Your task to perform on an android device: turn notification dots off Image 0: 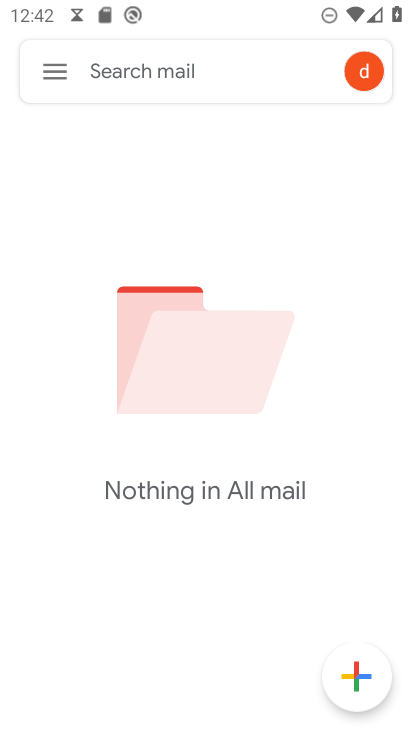
Step 0: press home button
Your task to perform on an android device: turn notification dots off Image 1: 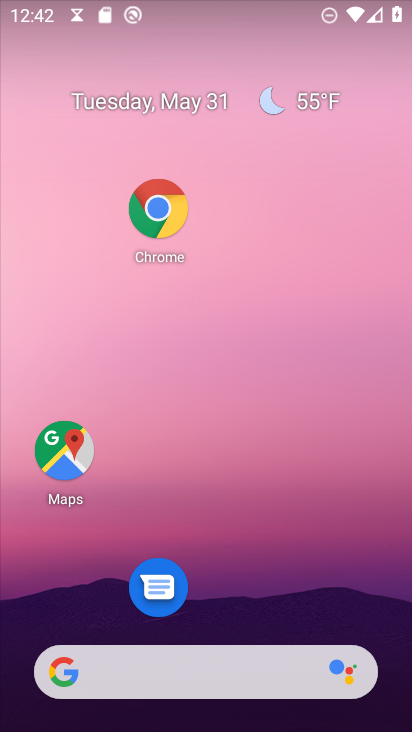
Step 1: drag from (285, 614) to (237, 160)
Your task to perform on an android device: turn notification dots off Image 2: 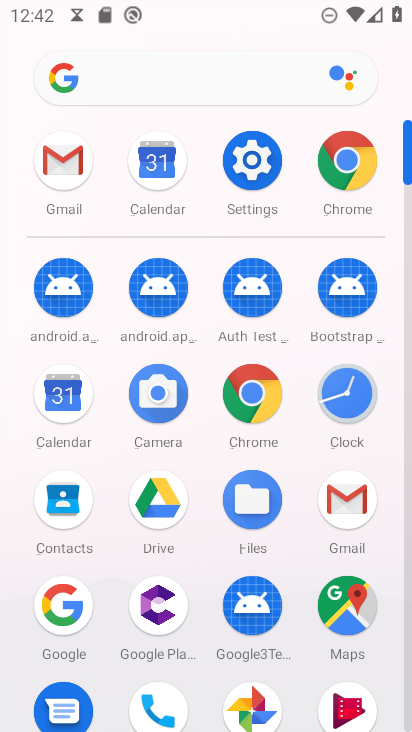
Step 2: click (258, 163)
Your task to perform on an android device: turn notification dots off Image 3: 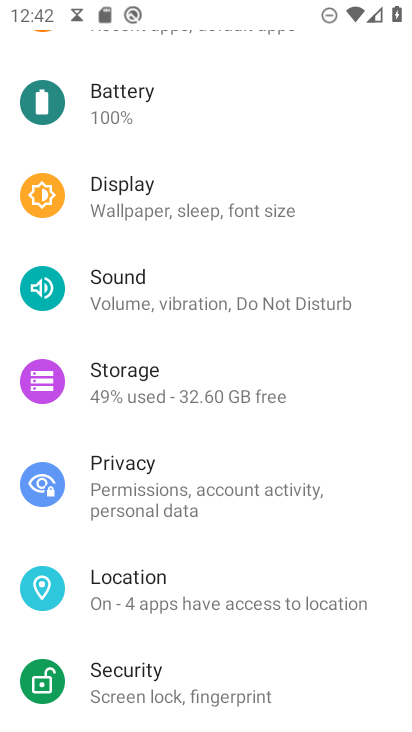
Step 3: drag from (258, 163) to (278, 322)
Your task to perform on an android device: turn notification dots off Image 4: 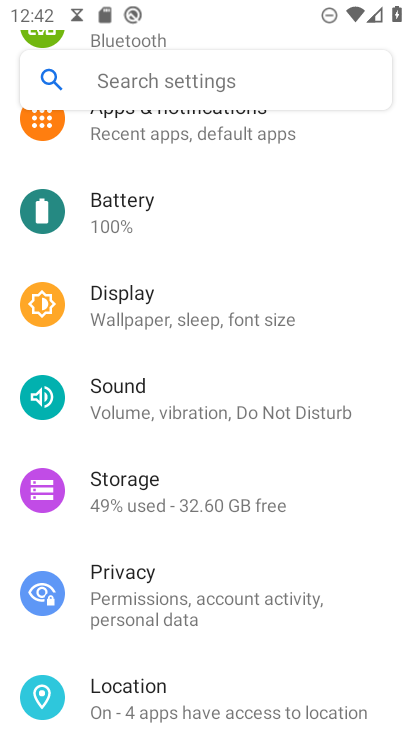
Step 4: click (215, 136)
Your task to perform on an android device: turn notification dots off Image 5: 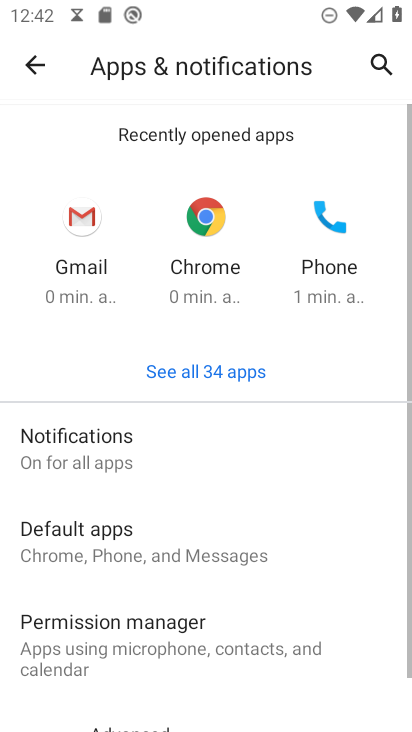
Step 5: click (144, 459)
Your task to perform on an android device: turn notification dots off Image 6: 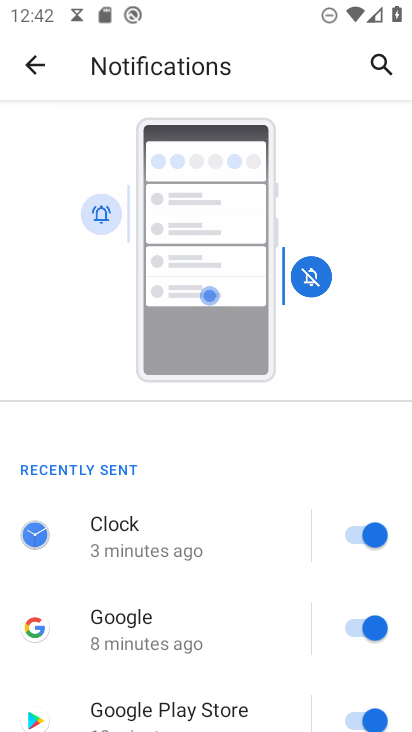
Step 6: drag from (117, 654) to (149, 170)
Your task to perform on an android device: turn notification dots off Image 7: 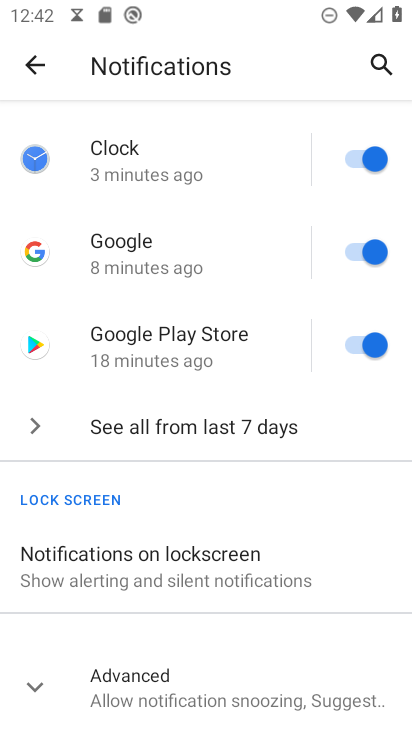
Step 7: click (183, 687)
Your task to perform on an android device: turn notification dots off Image 8: 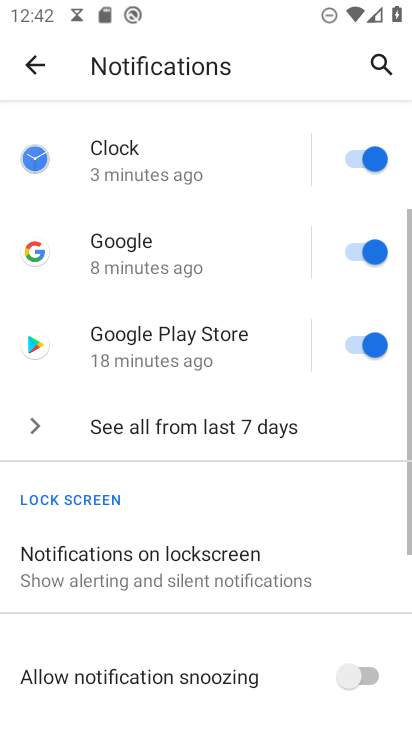
Step 8: task complete